Your task to perform on an android device: Go to Google maps Image 0: 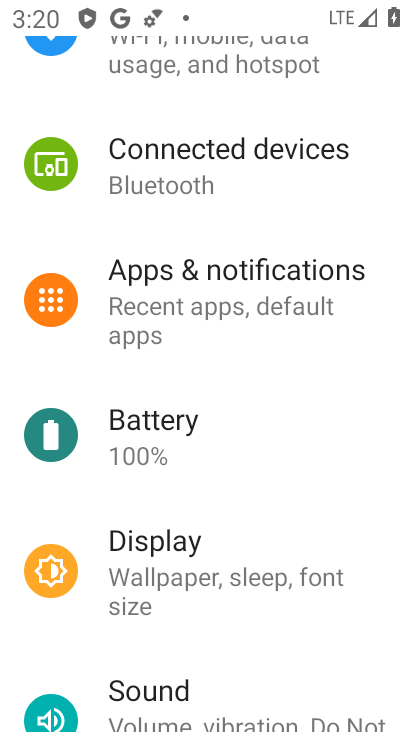
Step 0: press home button
Your task to perform on an android device: Go to Google maps Image 1: 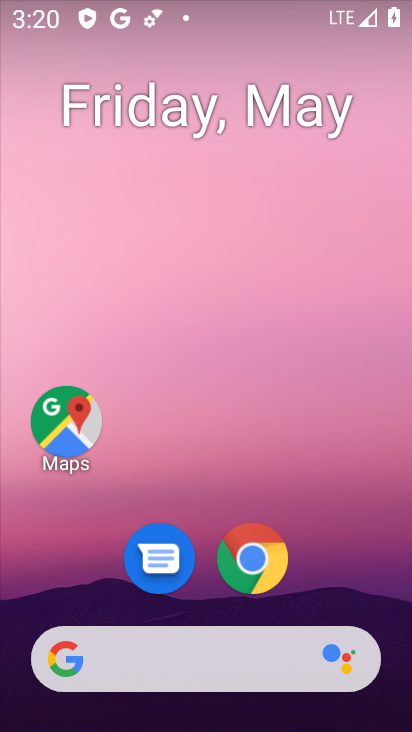
Step 1: click (72, 439)
Your task to perform on an android device: Go to Google maps Image 2: 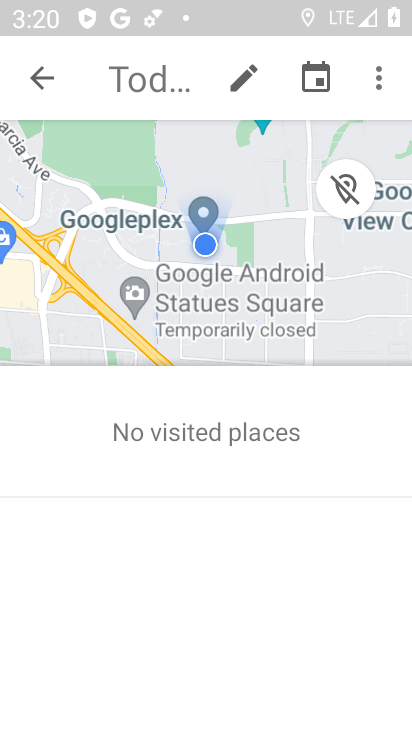
Step 2: click (44, 78)
Your task to perform on an android device: Go to Google maps Image 3: 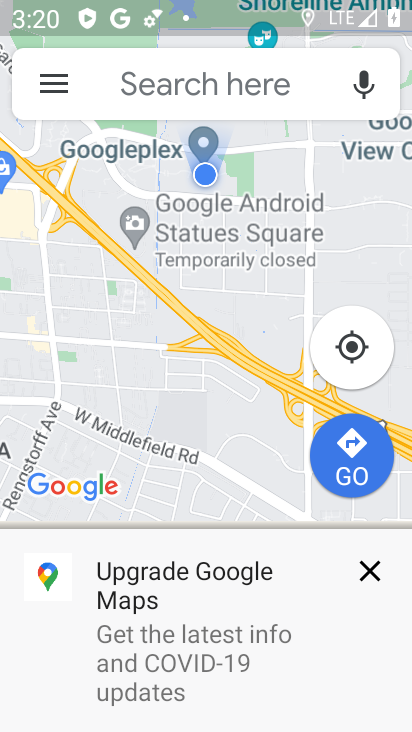
Step 3: task complete